Your task to perform on an android device: delete browsing data in the chrome app Image 0: 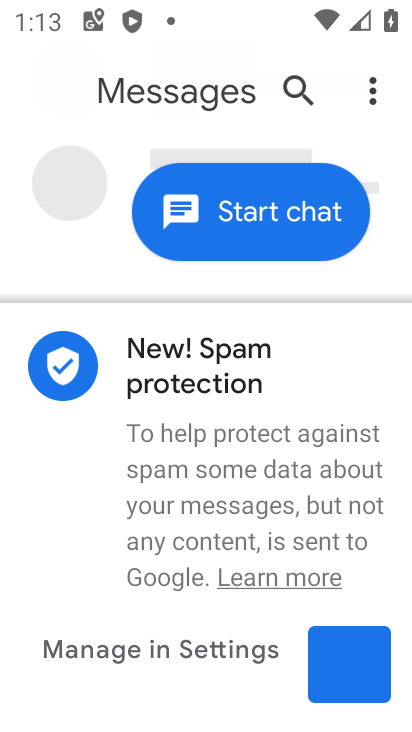
Step 0: press home button
Your task to perform on an android device: delete browsing data in the chrome app Image 1: 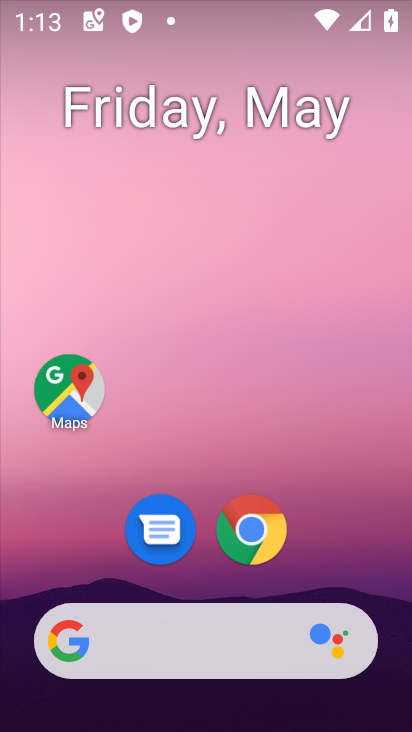
Step 1: drag from (345, 536) to (339, 242)
Your task to perform on an android device: delete browsing data in the chrome app Image 2: 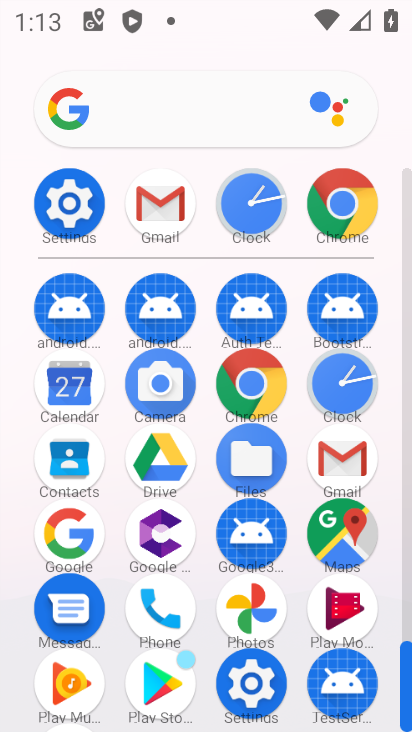
Step 2: click (355, 196)
Your task to perform on an android device: delete browsing data in the chrome app Image 3: 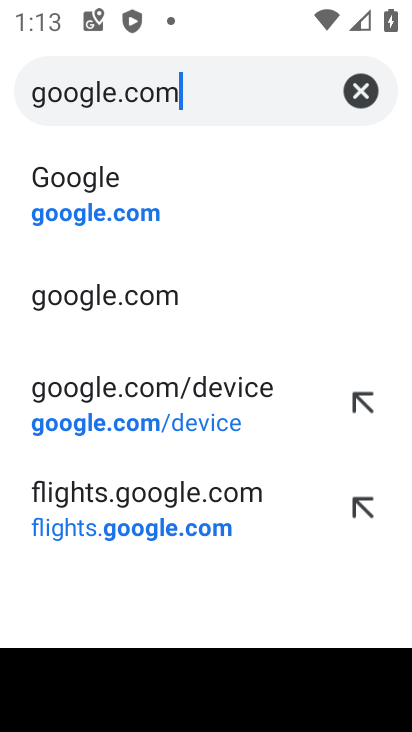
Step 3: click (350, 106)
Your task to perform on an android device: delete browsing data in the chrome app Image 4: 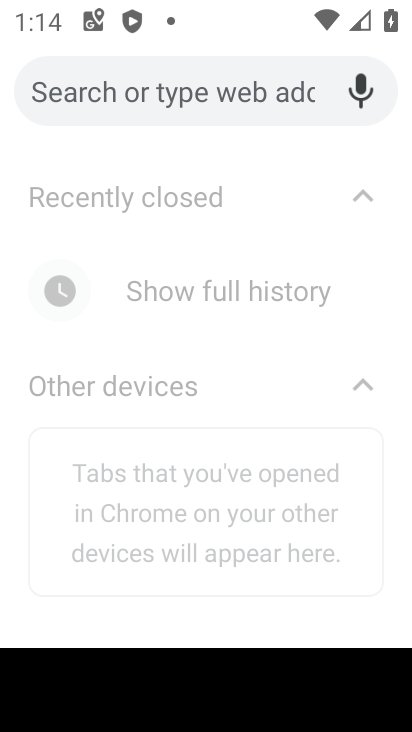
Step 4: press home button
Your task to perform on an android device: delete browsing data in the chrome app Image 5: 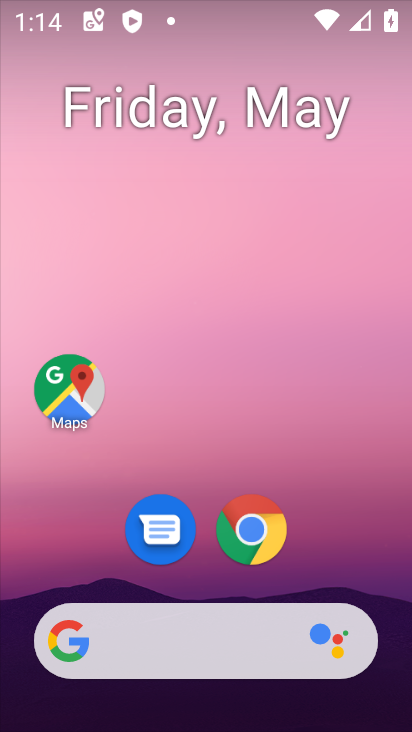
Step 5: drag from (352, 549) to (336, 187)
Your task to perform on an android device: delete browsing data in the chrome app Image 6: 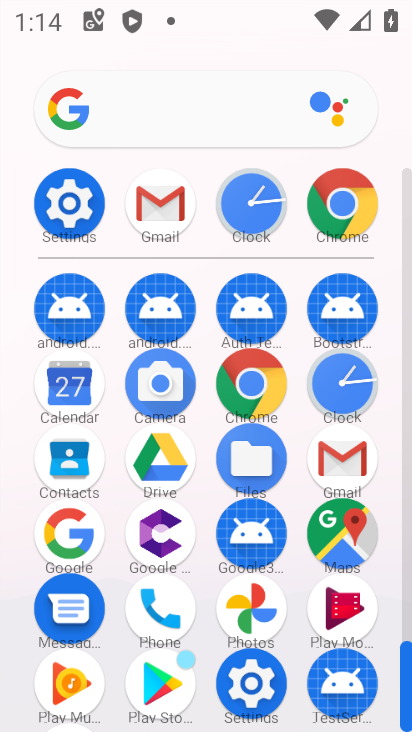
Step 6: click (268, 659)
Your task to perform on an android device: delete browsing data in the chrome app Image 7: 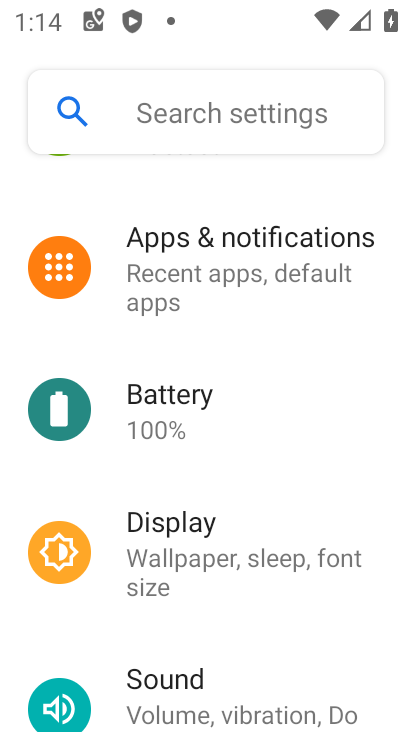
Step 7: press home button
Your task to perform on an android device: delete browsing data in the chrome app Image 8: 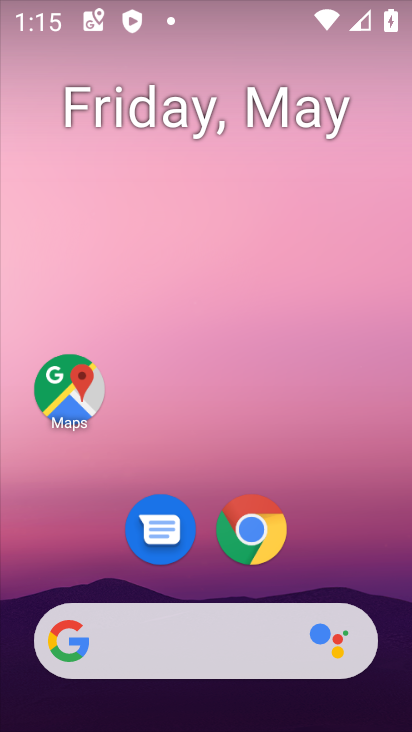
Step 8: click (275, 534)
Your task to perform on an android device: delete browsing data in the chrome app Image 9: 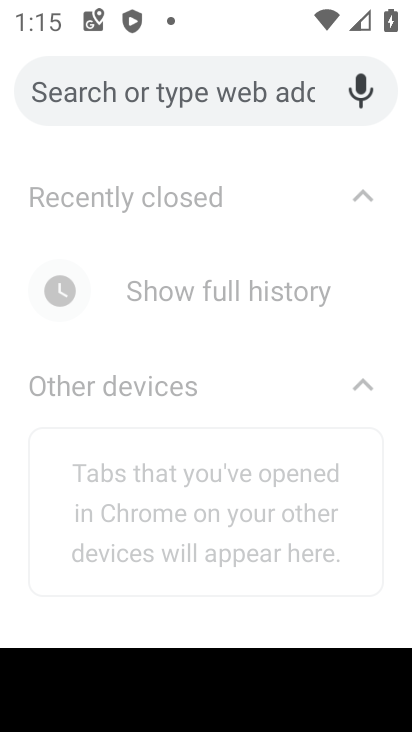
Step 9: press home button
Your task to perform on an android device: delete browsing data in the chrome app Image 10: 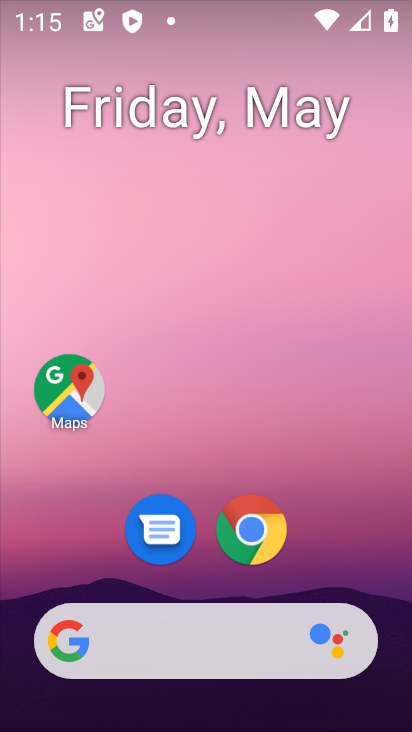
Step 10: drag from (384, 566) to (342, 224)
Your task to perform on an android device: delete browsing data in the chrome app Image 11: 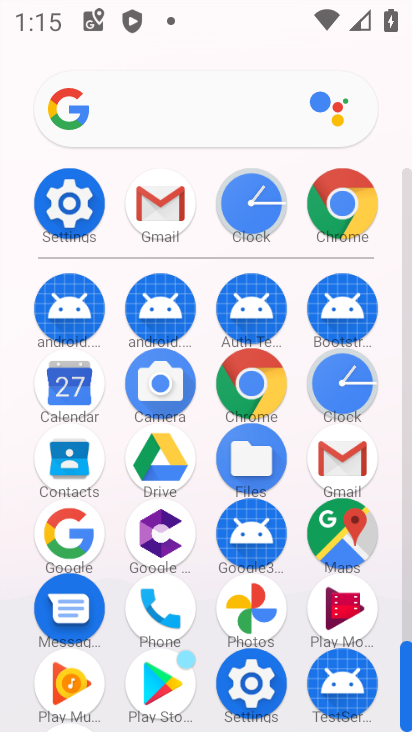
Step 11: click (52, 234)
Your task to perform on an android device: delete browsing data in the chrome app Image 12: 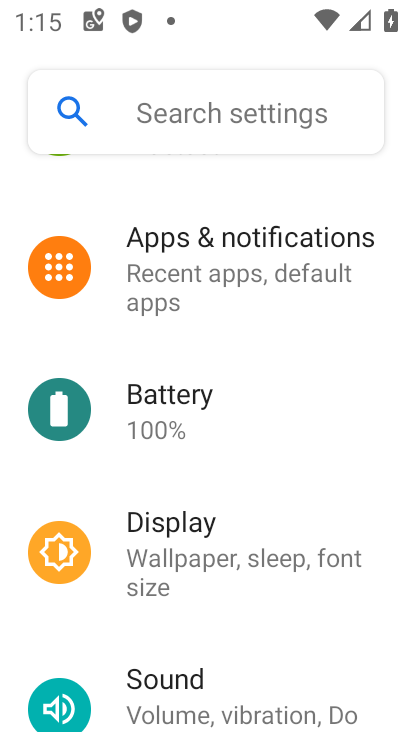
Step 12: task complete